Your task to perform on an android device: What's the weather today? Image 0: 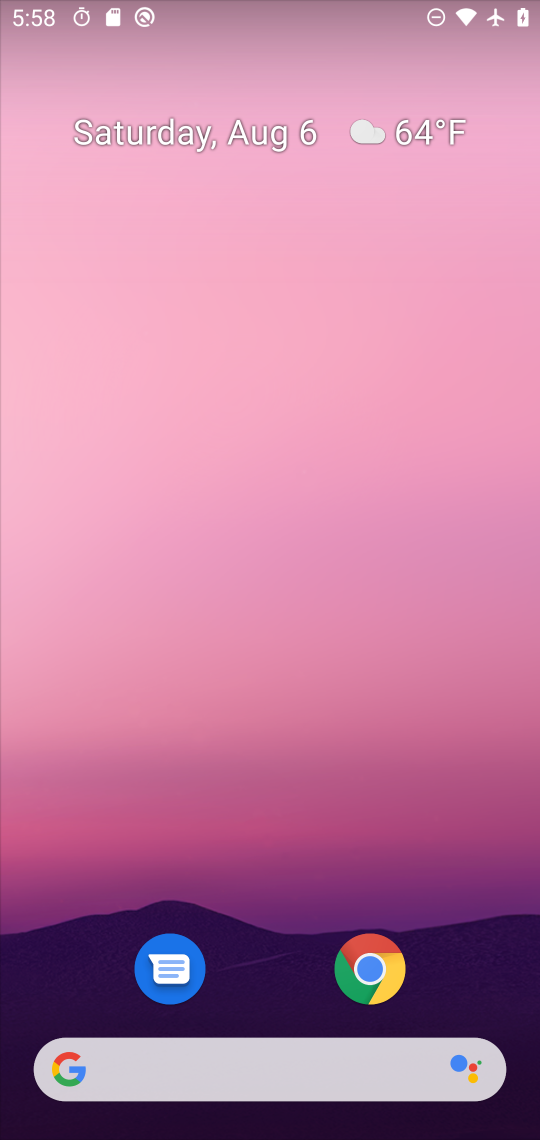
Step 0: press home button
Your task to perform on an android device: What's the weather today? Image 1: 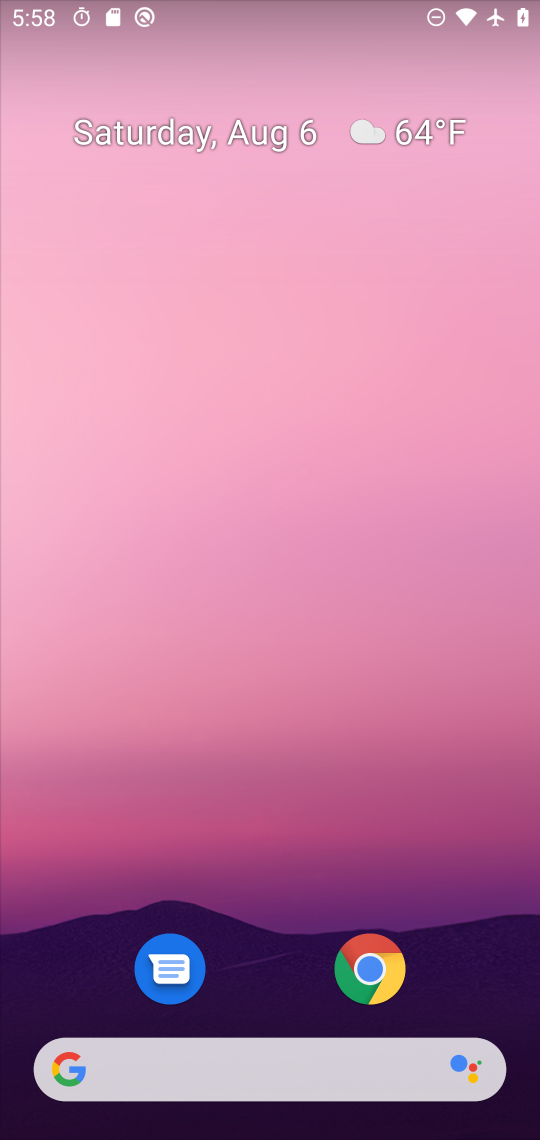
Step 1: click (53, 1075)
Your task to perform on an android device: What's the weather today? Image 2: 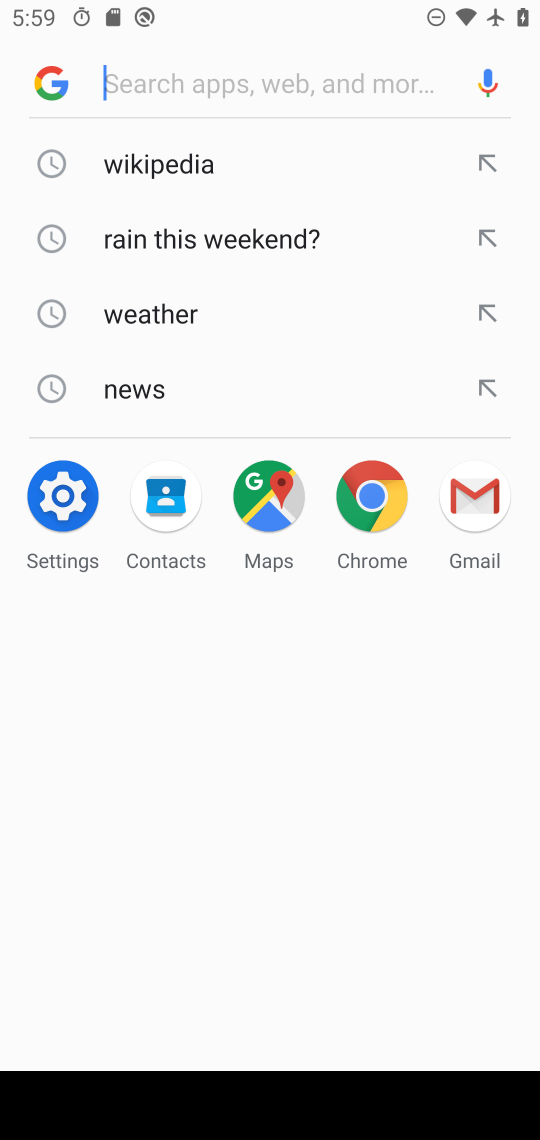
Step 2: type " weather today?"
Your task to perform on an android device: What's the weather today? Image 3: 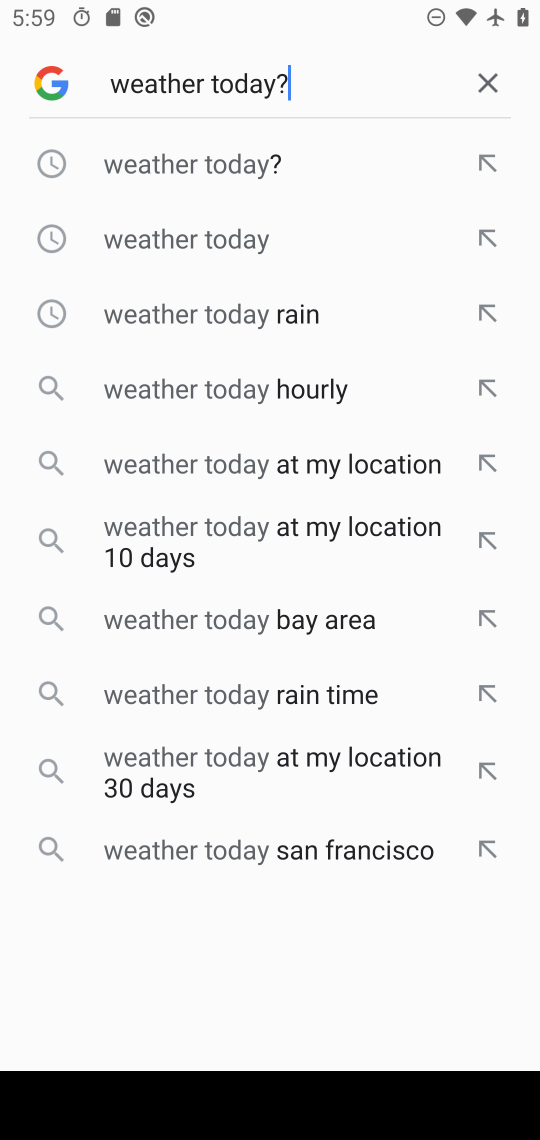
Step 3: press enter
Your task to perform on an android device: What's the weather today? Image 4: 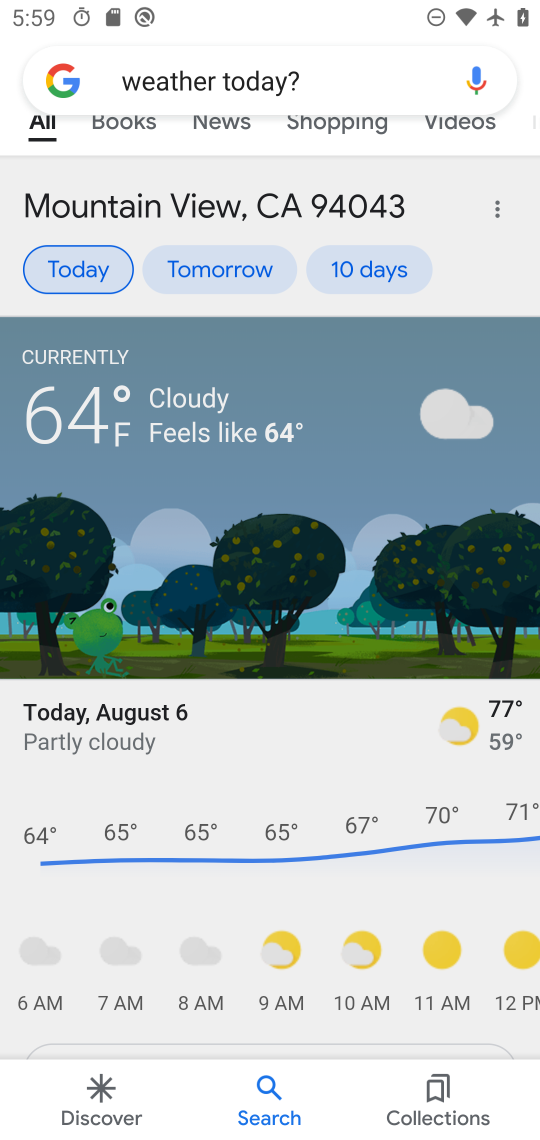
Step 4: task complete